Your task to perform on an android device: change the clock style Image 0: 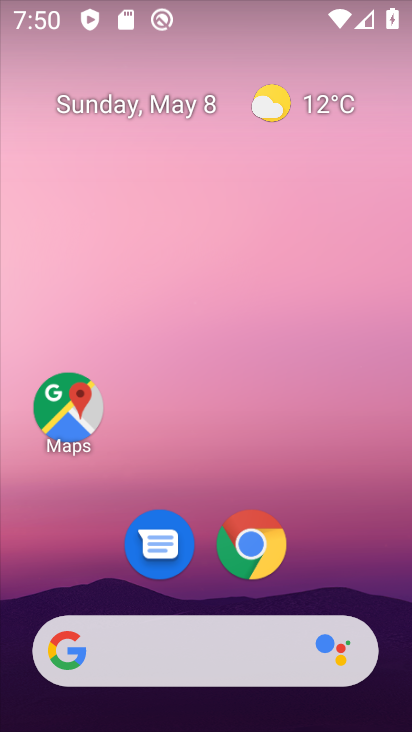
Step 0: drag from (323, 530) to (248, 85)
Your task to perform on an android device: change the clock style Image 1: 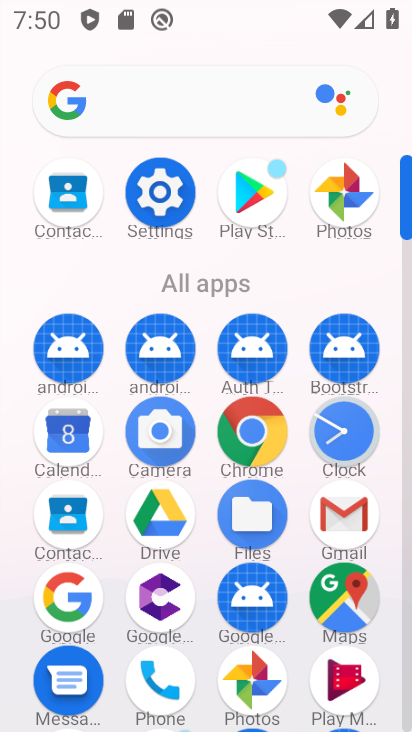
Step 1: click (346, 438)
Your task to perform on an android device: change the clock style Image 2: 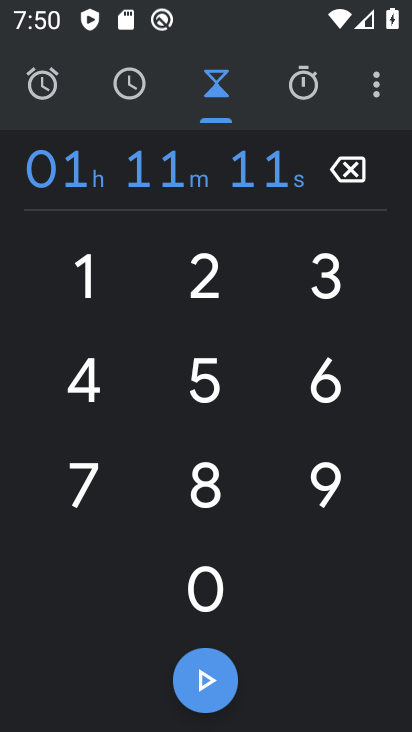
Step 2: click (374, 72)
Your task to perform on an android device: change the clock style Image 3: 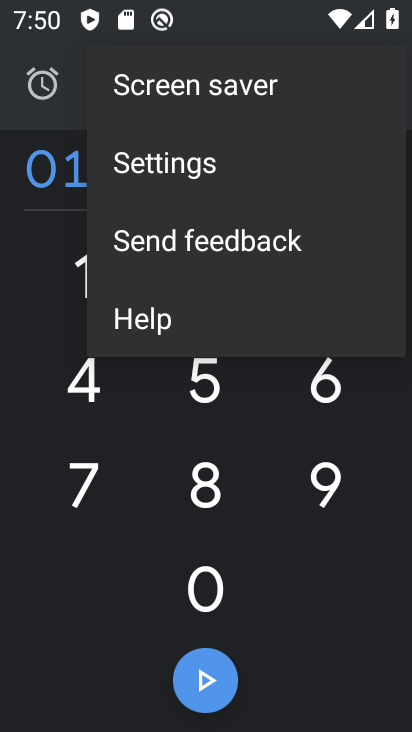
Step 3: click (168, 165)
Your task to perform on an android device: change the clock style Image 4: 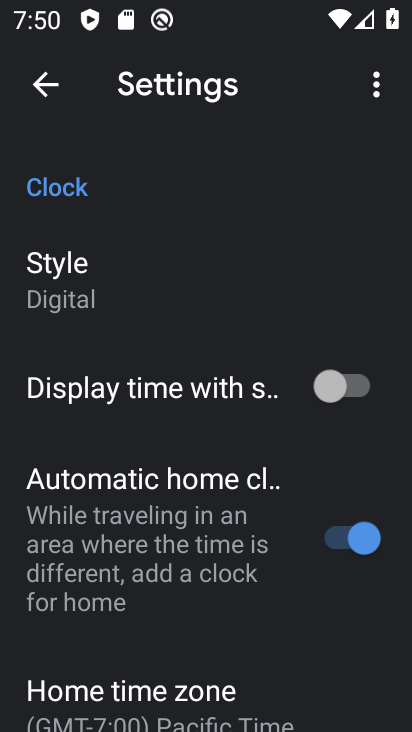
Step 4: click (68, 293)
Your task to perform on an android device: change the clock style Image 5: 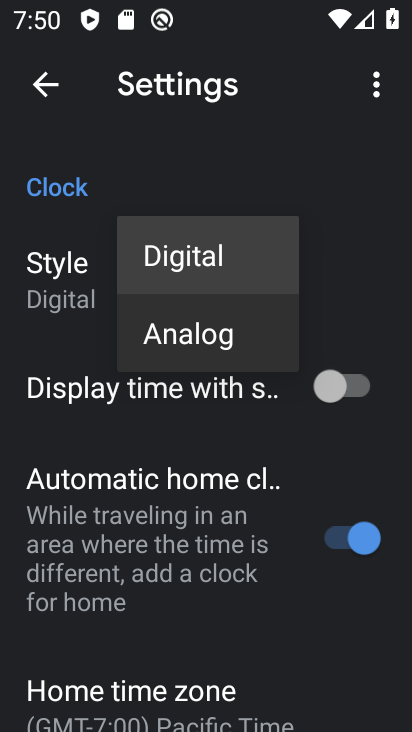
Step 5: click (173, 339)
Your task to perform on an android device: change the clock style Image 6: 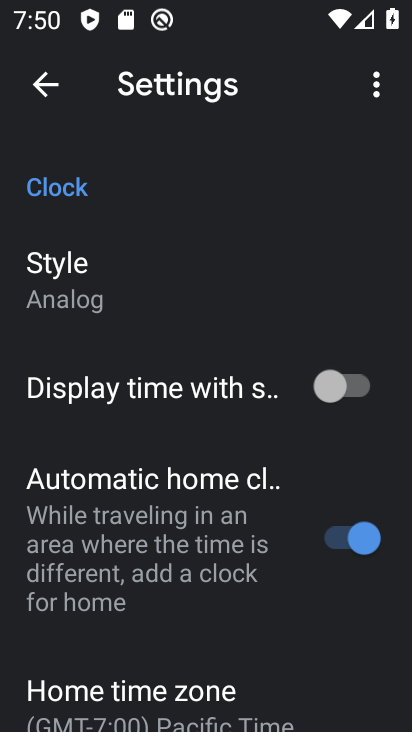
Step 6: task complete